Your task to perform on an android device: turn off improve location accuracy Image 0: 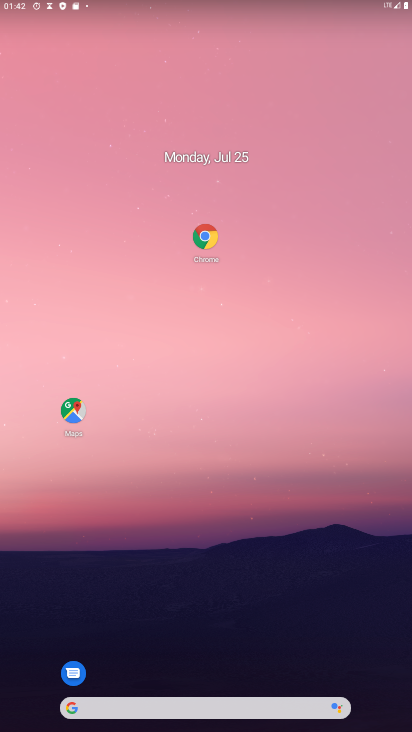
Step 0: drag from (273, 665) to (292, 5)
Your task to perform on an android device: turn off improve location accuracy Image 1: 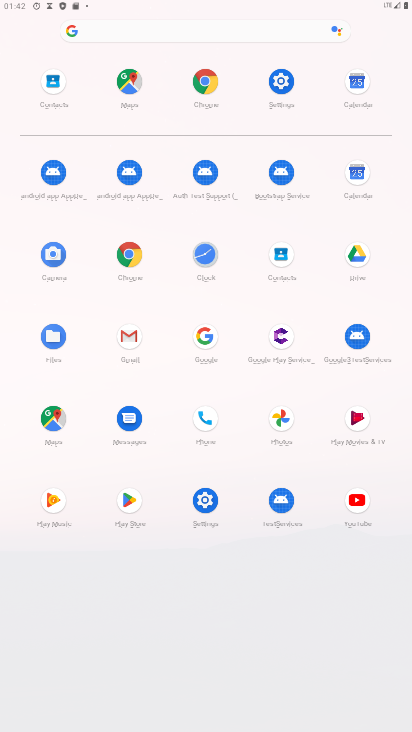
Step 1: click (284, 96)
Your task to perform on an android device: turn off improve location accuracy Image 2: 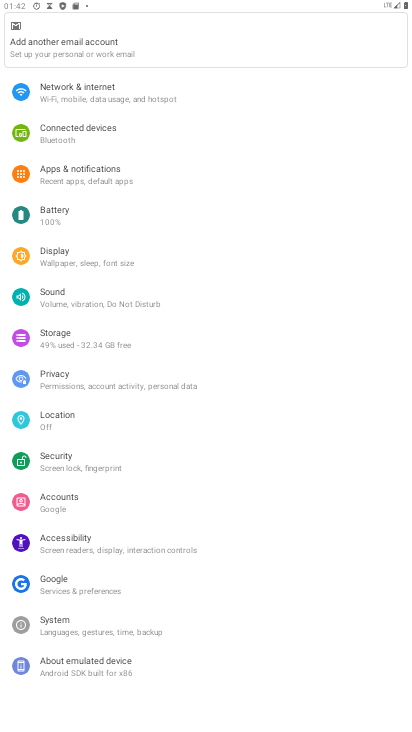
Step 2: click (63, 423)
Your task to perform on an android device: turn off improve location accuracy Image 3: 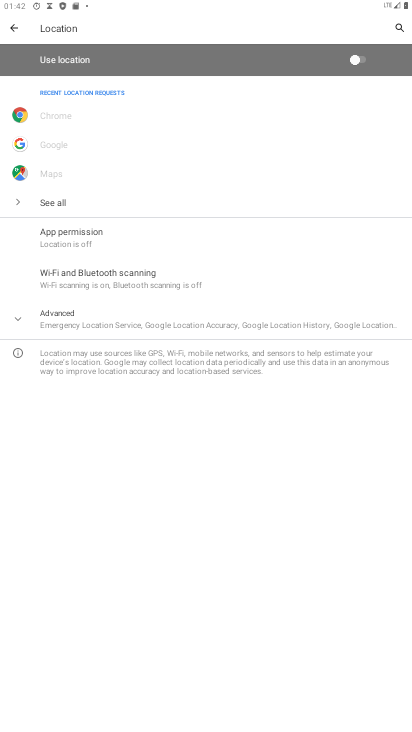
Step 3: click (77, 314)
Your task to perform on an android device: turn off improve location accuracy Image 4: 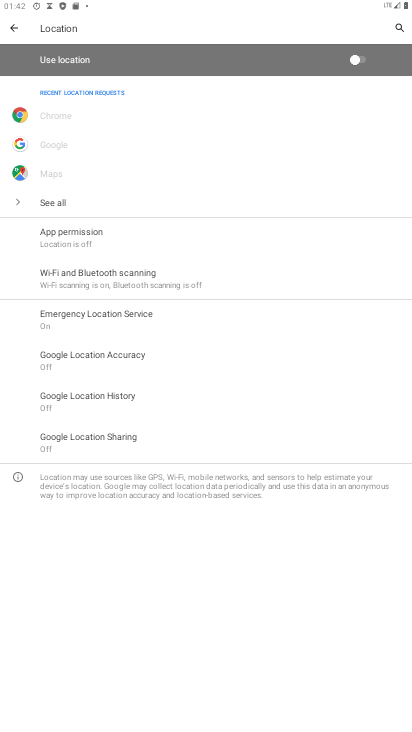
Step 4: click (55, 364)
Your task to perform on an android device: turn off improve location accuracy Image 5: 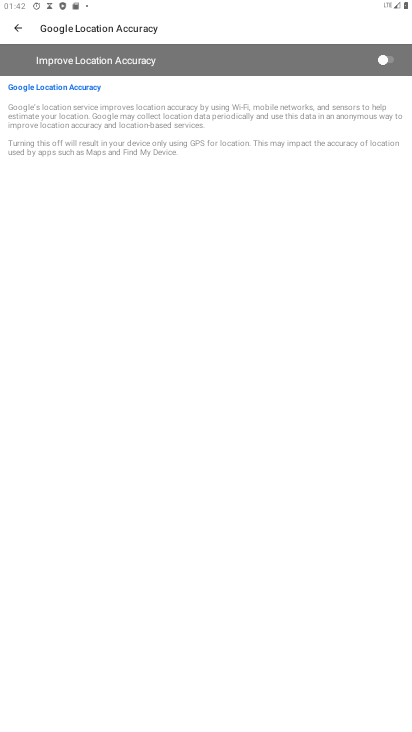
Step 5: task complete